Your task to perform on an android device: Search for vegetarian restaurants on Maps Image 0: 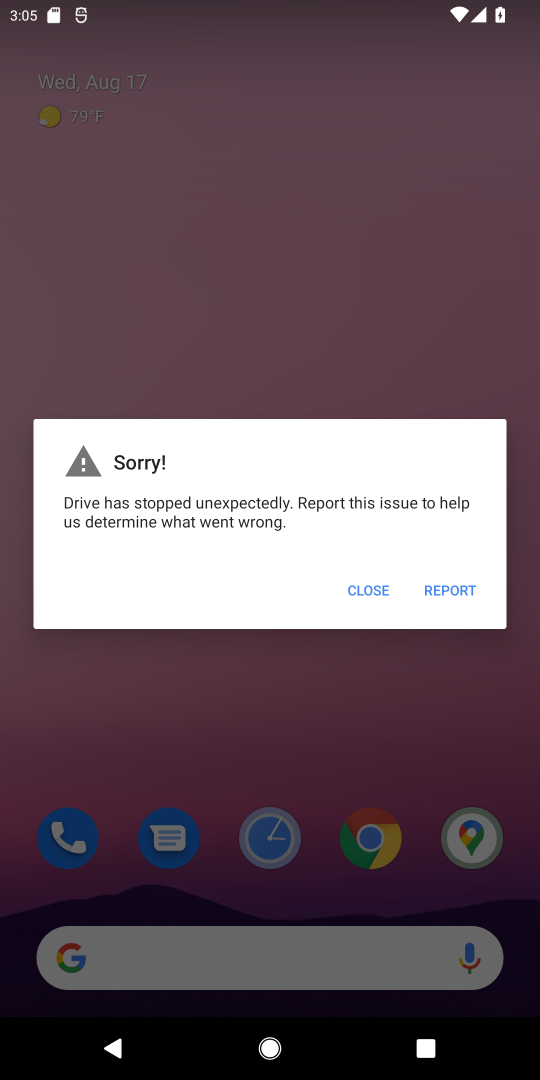
Step 0: click (374, 595)
Your task to perform on an android device: Search for vegetarian restaurants on Maps Image 1: 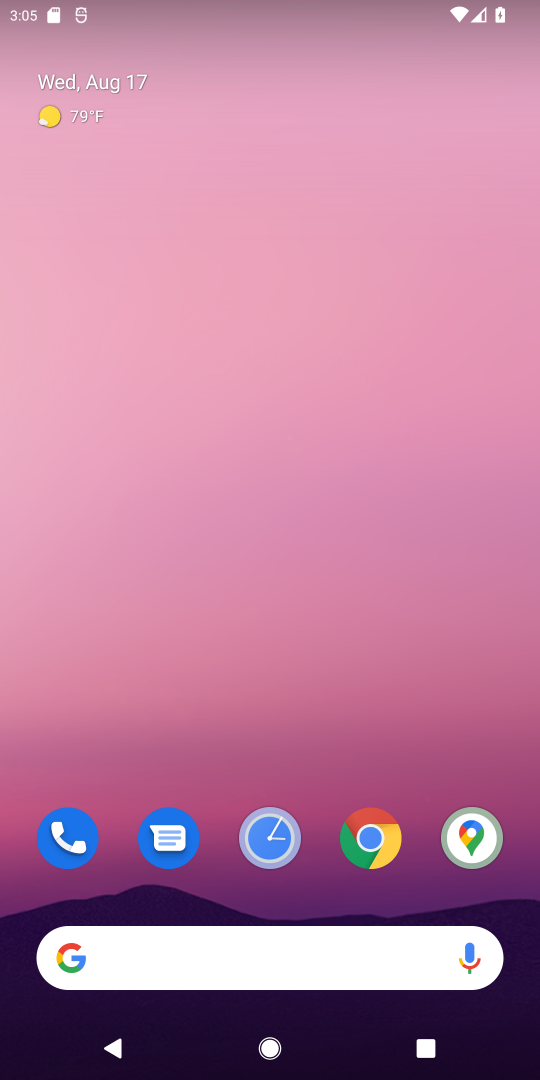
Step 1: click (453, 842)
Your task to perform on an android device: Search for vegetarian restaurants on Maps Image 2: 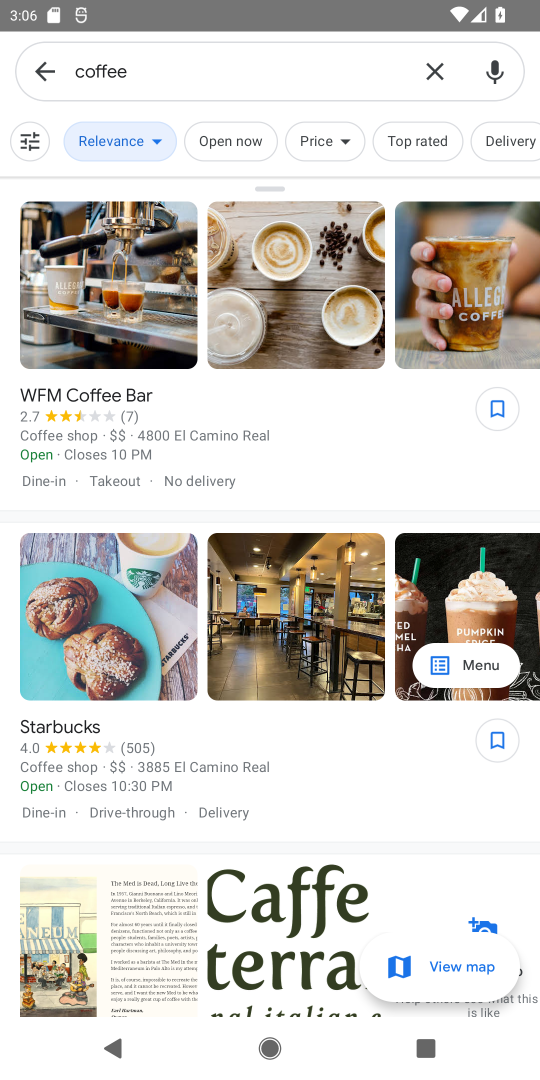
Step 2: click (436, 65)
Your task to perform on an android device: Search for vegetarian restaurants on Maps Image 3: 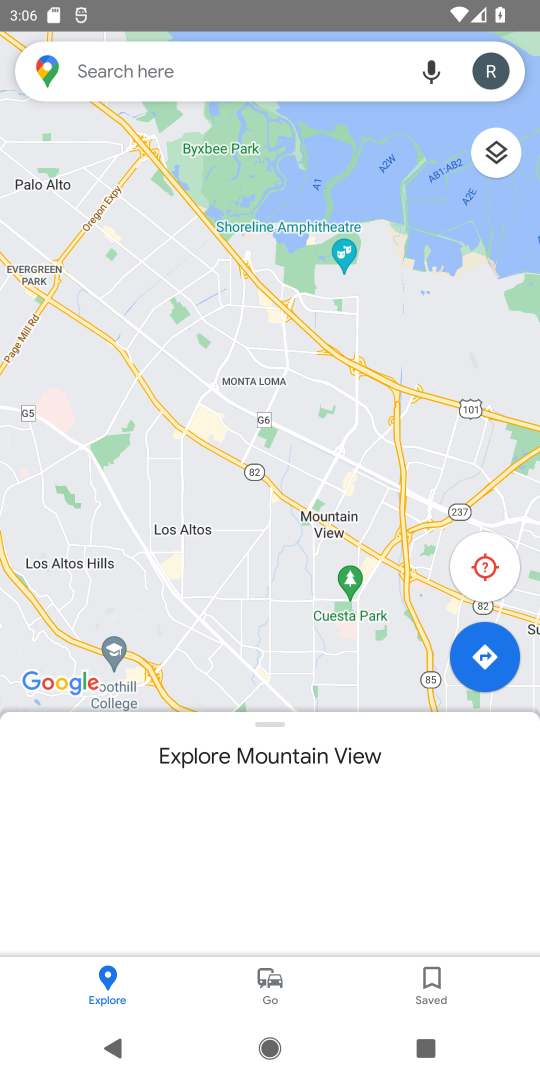
Step 3: click (234, 81)
Your task to perform on an android device: Search for vegetarian restaurants on Maps Image 4: 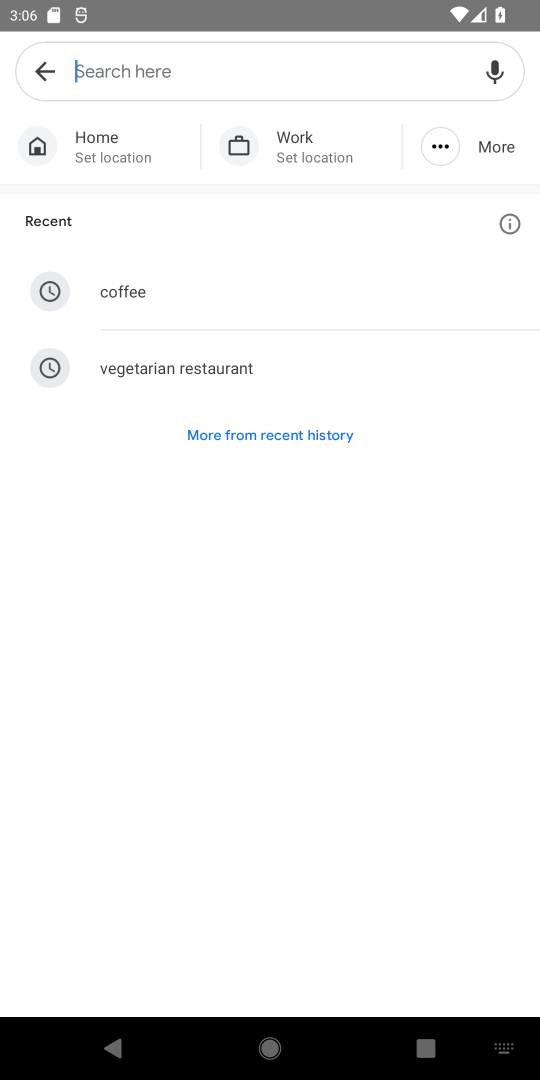
Step 4: click (184, 368)
Your task to perform on an android device: Search for vegetarian restaurants on Maps Image 5: 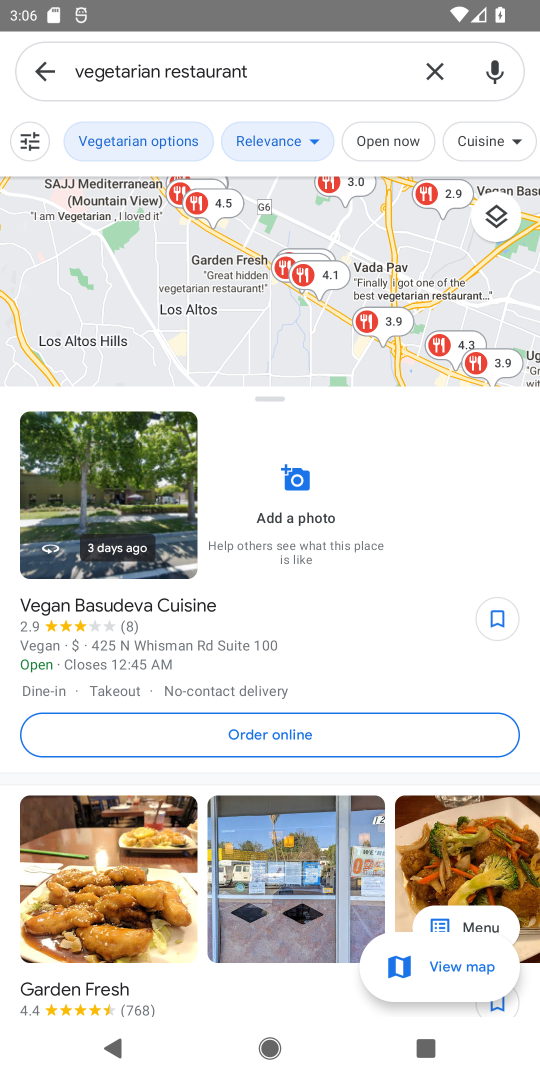
Step 5: task complete